Your task to perform on an android device: add a label to a message in the gmail app Image 0: 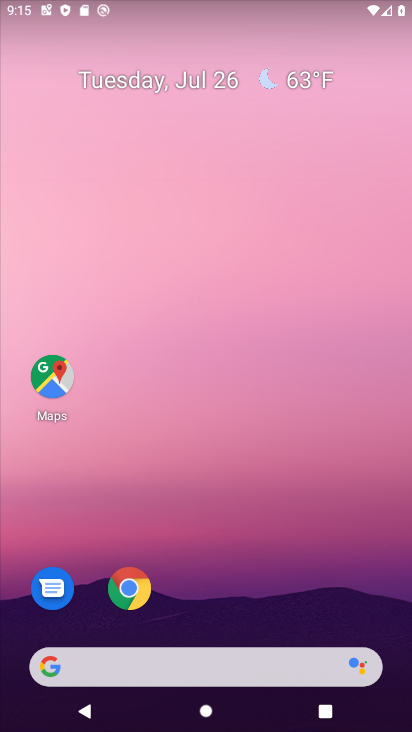
Step 0: drag from (225, 632) to (67, 41)
Your task to perform on an android device: add a label to a message in the gmail app Image 1: 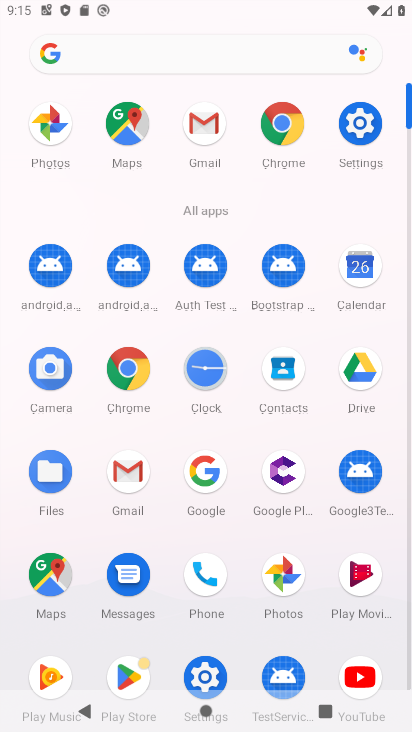
Step 1: click (196, 125)
Your task to perform on an android device: add a label to a message in the gmail app Image 2: 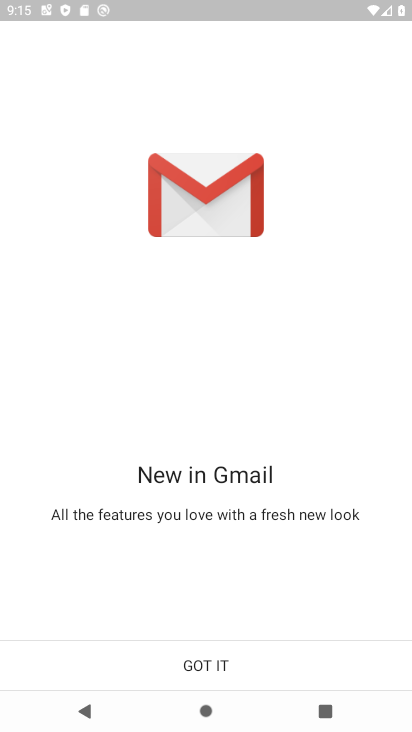
Step 2: click (198, 644)
Your task to perform on an android device: add a label to a message in the gmail app Image 3: 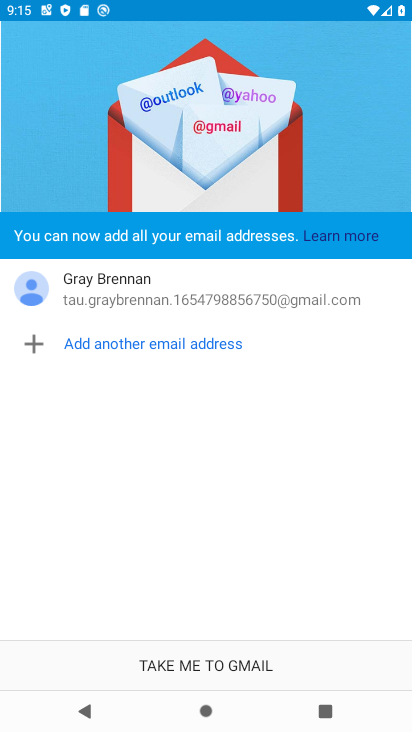
Step 3: click (198, 644)
Your task to perform on an android device: add a label to a message in the gmail app Image 4: 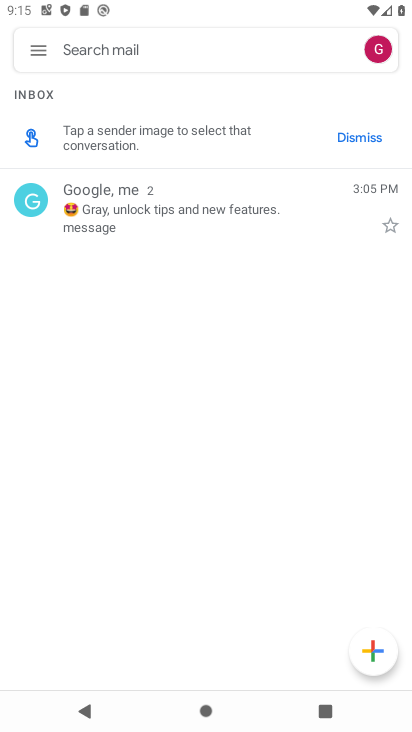
Step 4: click (25, 208)
Your task to perform on an android device: add a label to a message in the gmail app Image 5: 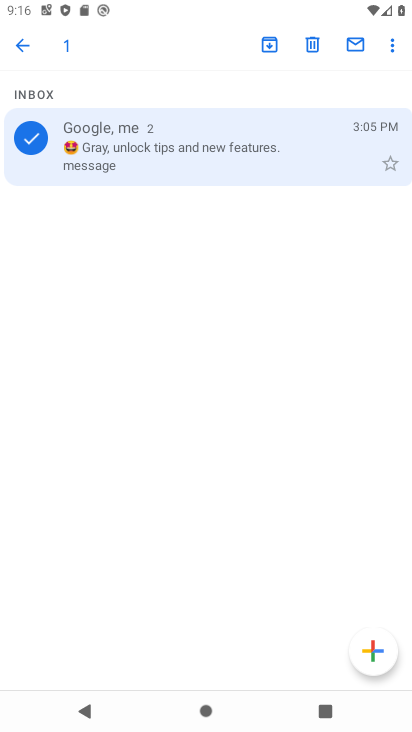
Step 5: click (404, 47)
Your task to perform on an android device: add a label to a message in the gmail app Image 6: 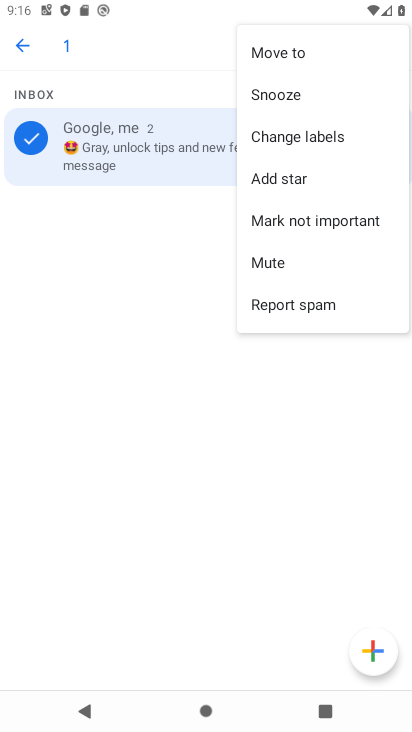
Step 6: click (350, 138)
Your task to perform on an android device: add a label to a message in the gmail app Image 7: 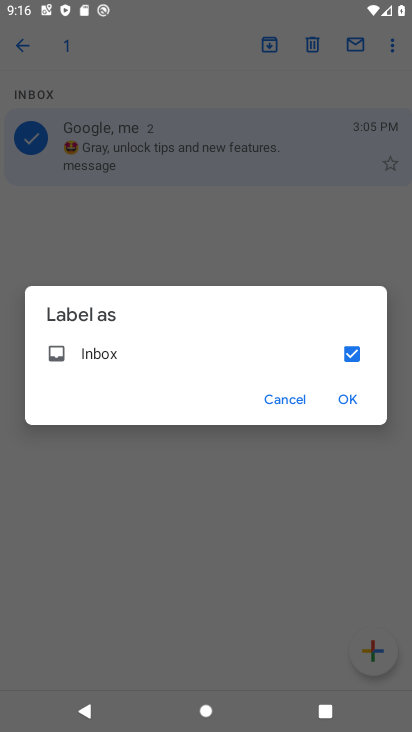
Step 7: click (352, 362)
Your task to perform on an android device: add a label to a message in the gmail app Image 8: 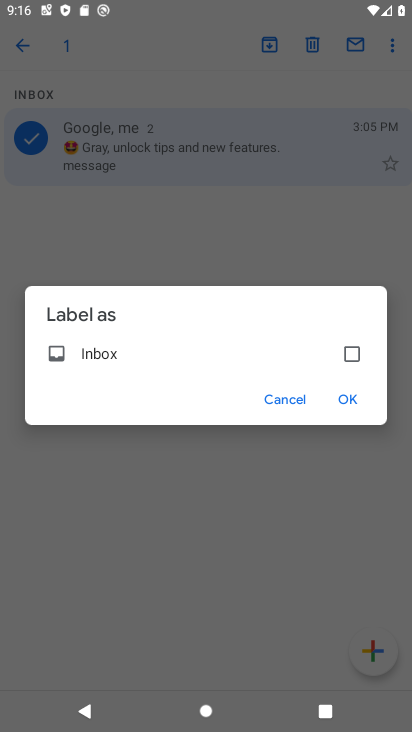
Step 8: click (350, 394)
Your task to perform on an android device: add a label to a message in the gmail app Image 9: 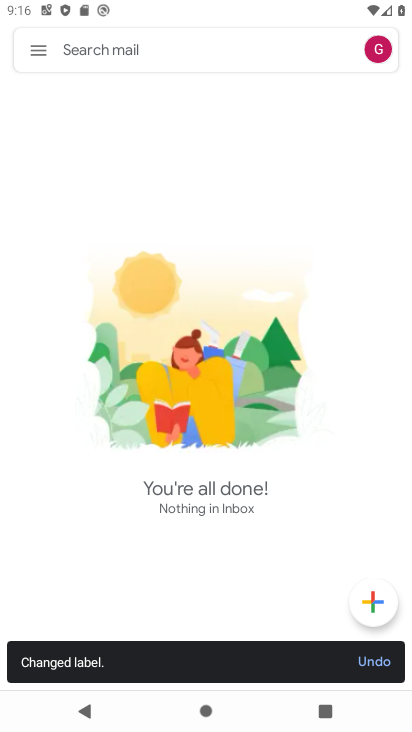
Step 9: task complete